Your task to perform on an android device: open app "Google Maps" Image 0: 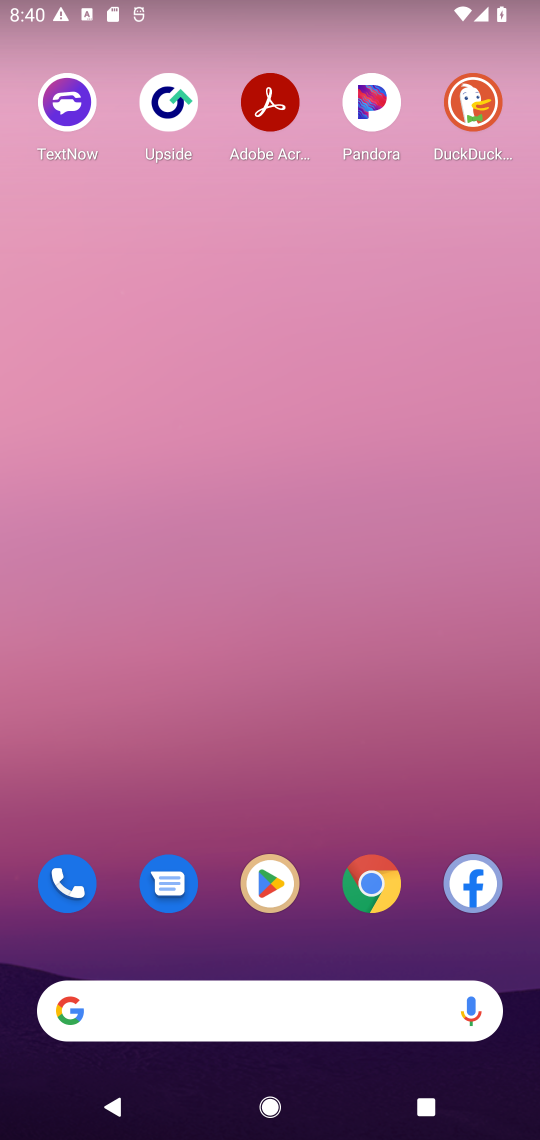
Step 0: click (271, 889)
Your task to perform on an android device: open app "Google Maps" Image 1: 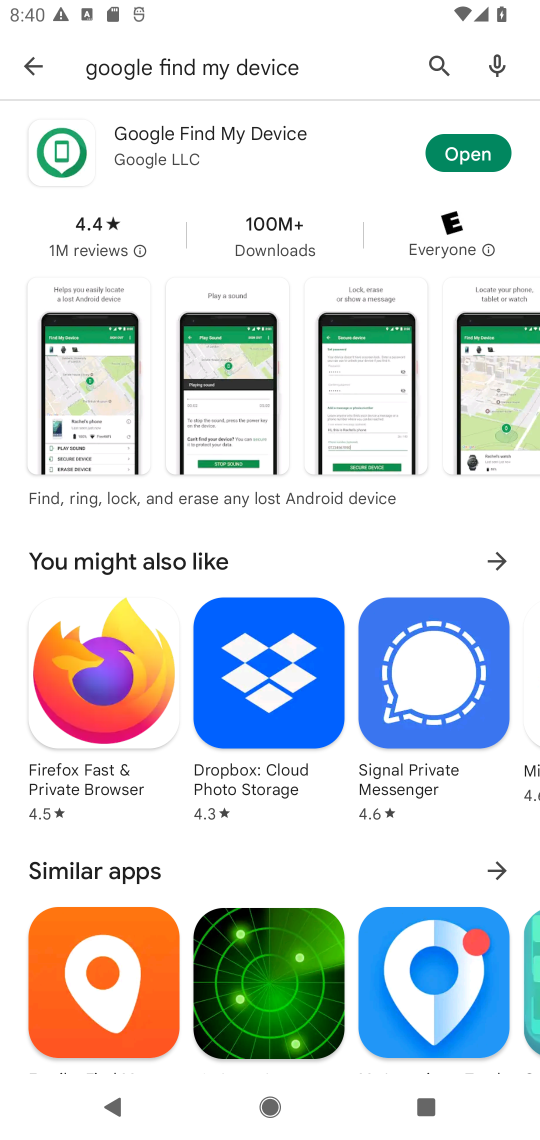
Step 1: click (430, 59)
Your task to perform on an android device: open app "Google Maps" Image 2: 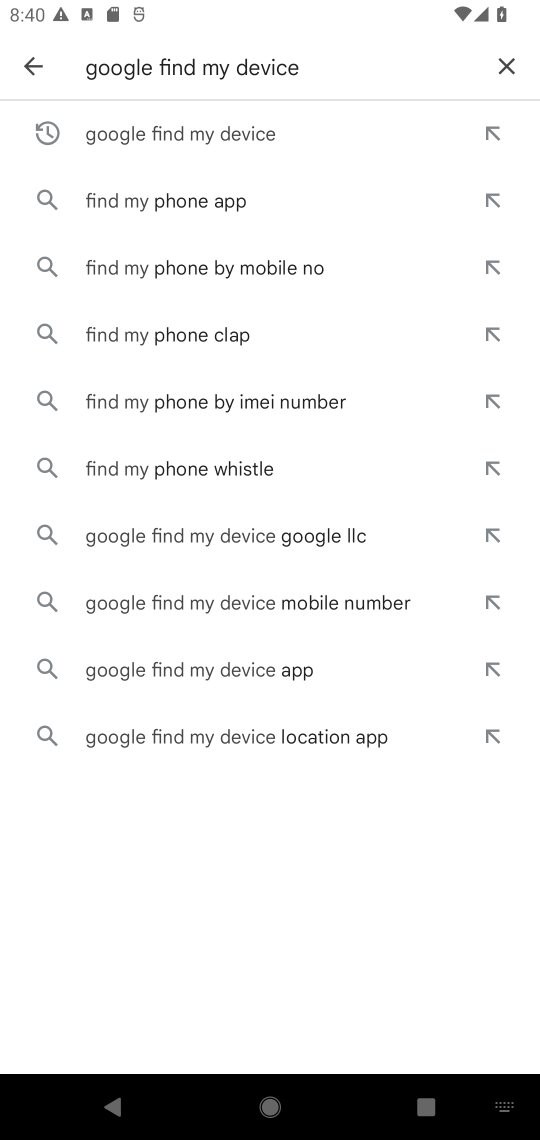
Step 2: click (507, 59)
Your task to perform on an android device: open app "Google Maps" Image 3: 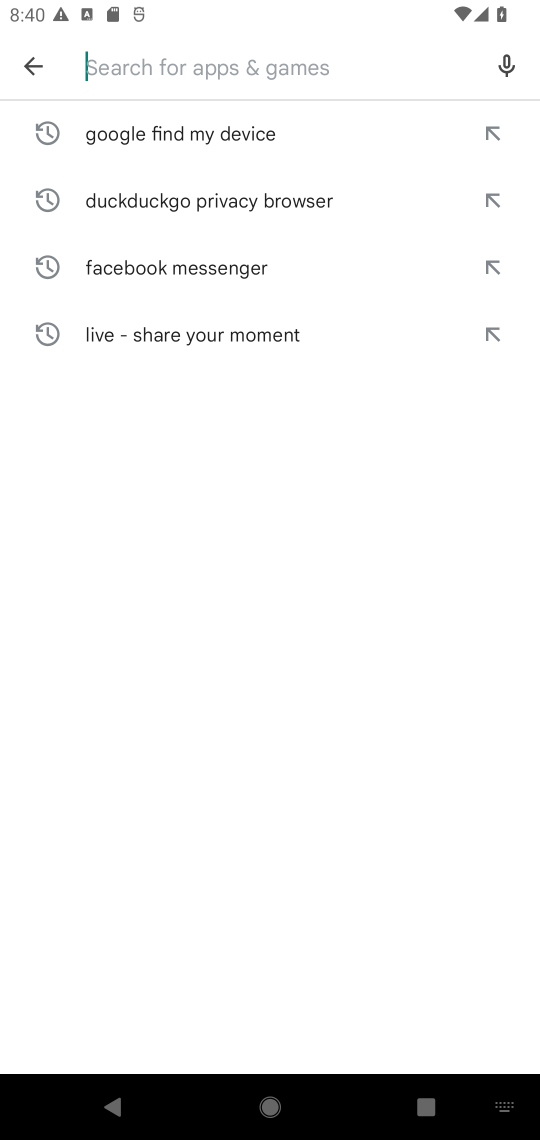
Step 3: type "Google Maps"
Your task to perform on an android device: open app "Google Maps" Image 4: 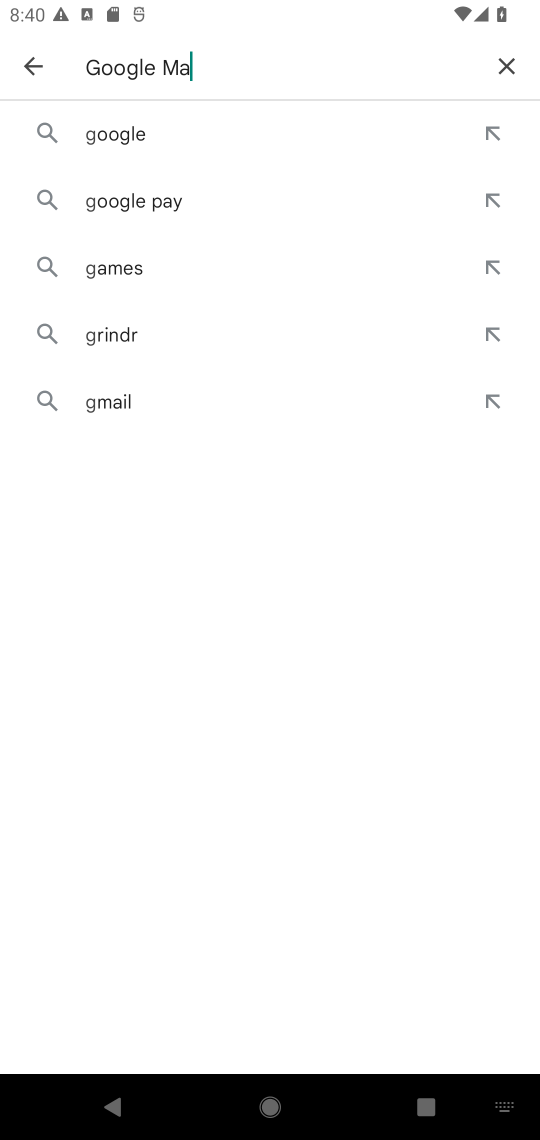
Step 4: type ""
Your task to perform on an android device: open app "Google Maps" Image 5: 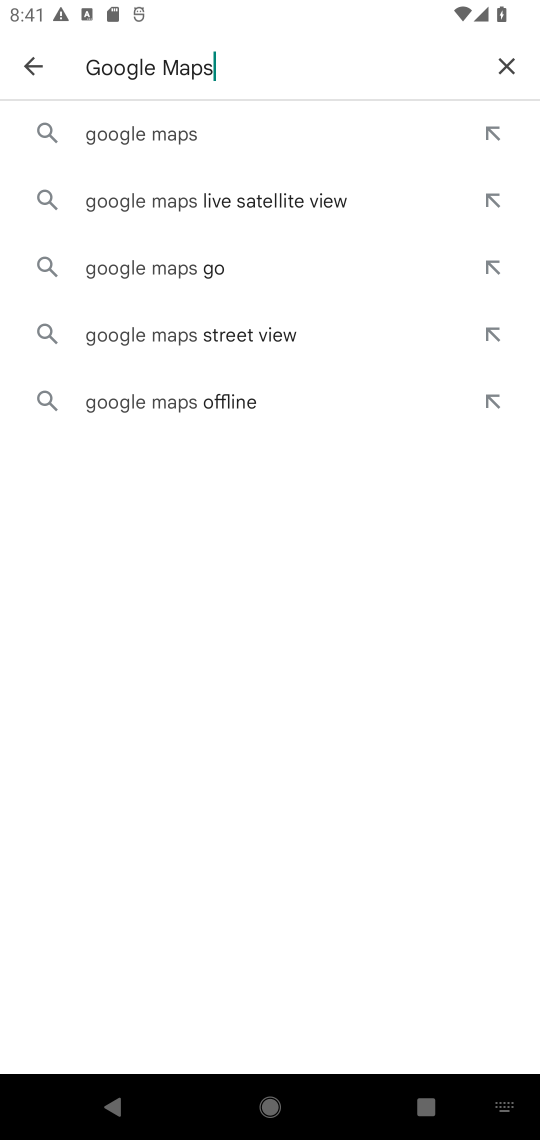
Step 5: click (177, 126)
Your task to perform on an android device: open app "Google Maps" Image 6: 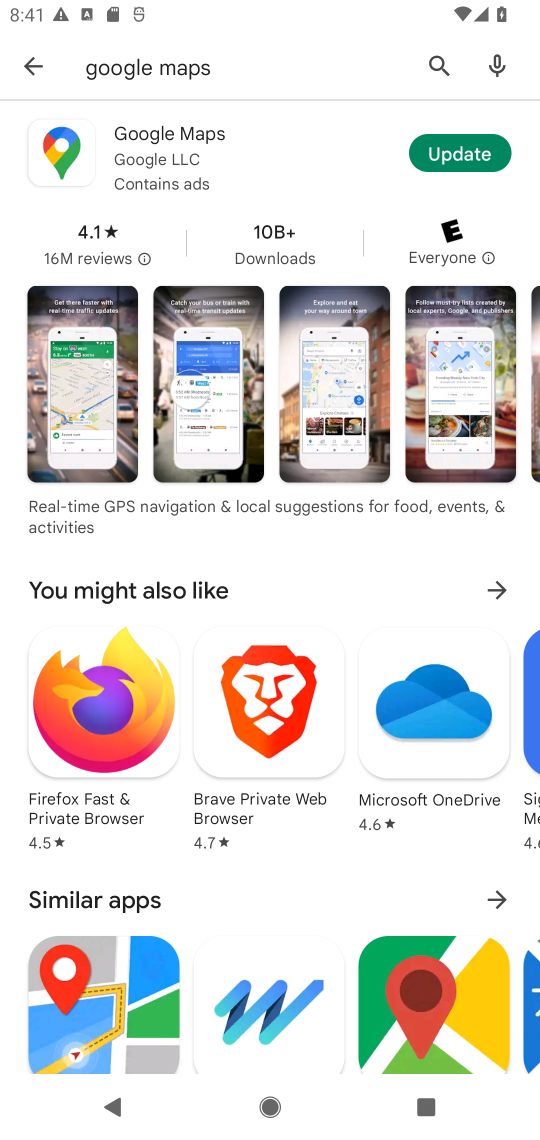
Step 6: click (140, 157)
Your task to perform on an android device: open app "Google Maps" Image 7: 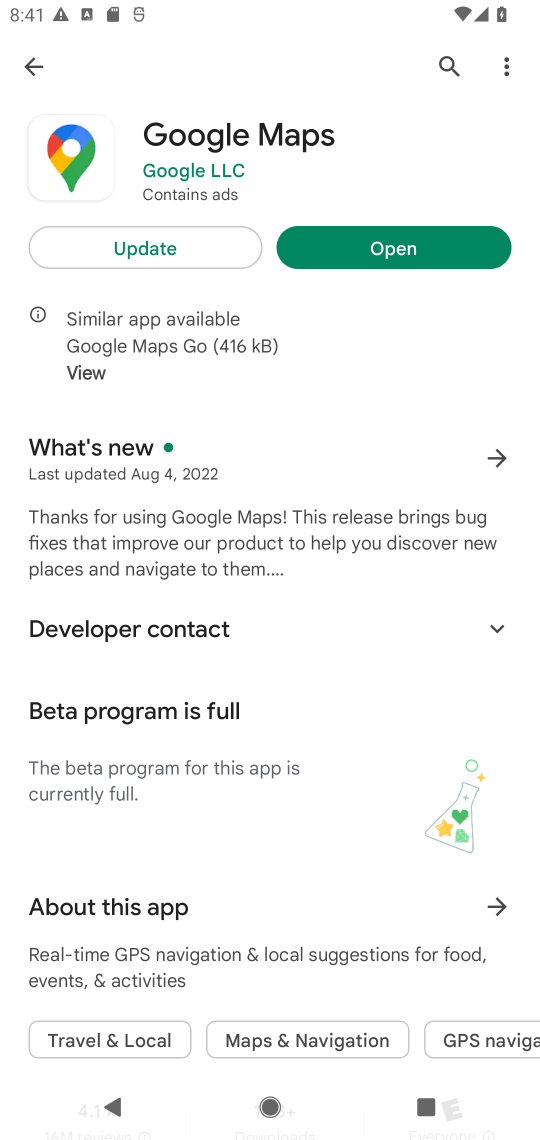
Step 7: click (400, 249)
Your task to perform on an android device: open app "Google Maps" Image 8: 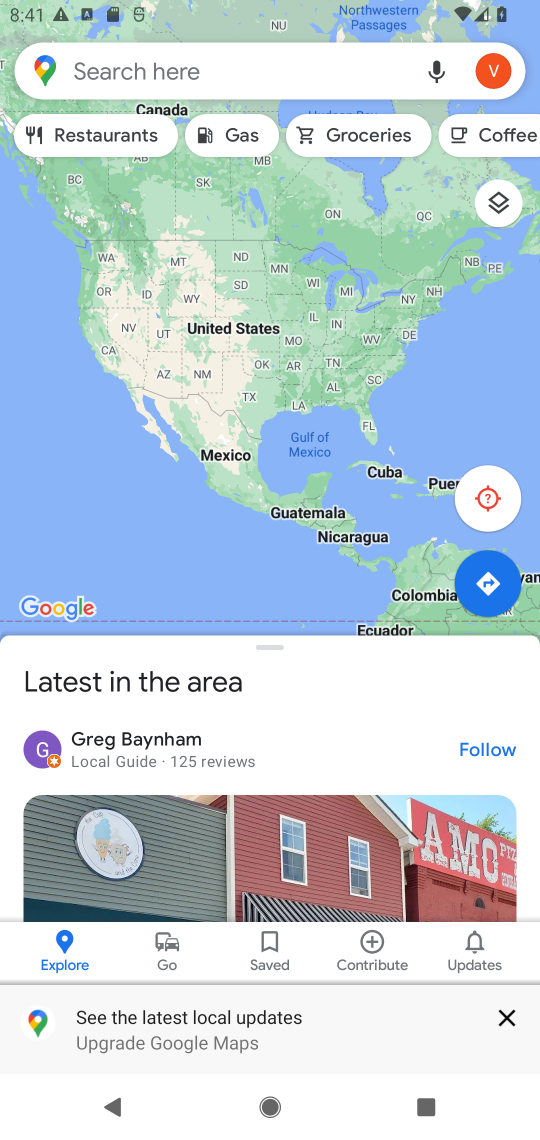
Step 8: task complete